Your task to perform on an android device: Go to Reddit.com Image 0: 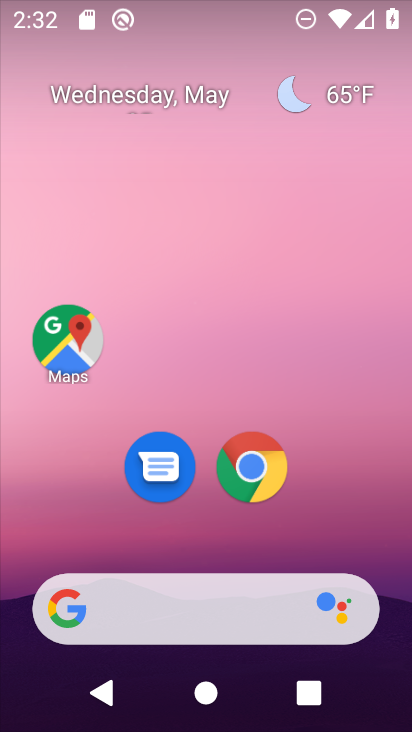
Step 0: click (263, 469)
Your task to perform on an android device: Go to Reddit.com Image 1: 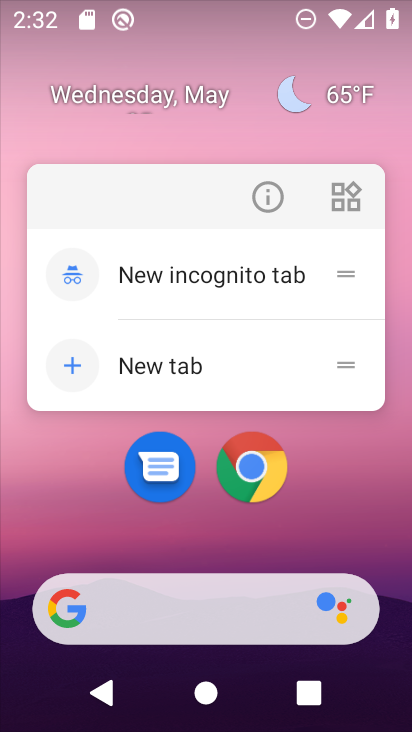
Step 1: click (243, 455)
Your task to perform on an android device: Go to Reddit.com Image 2: 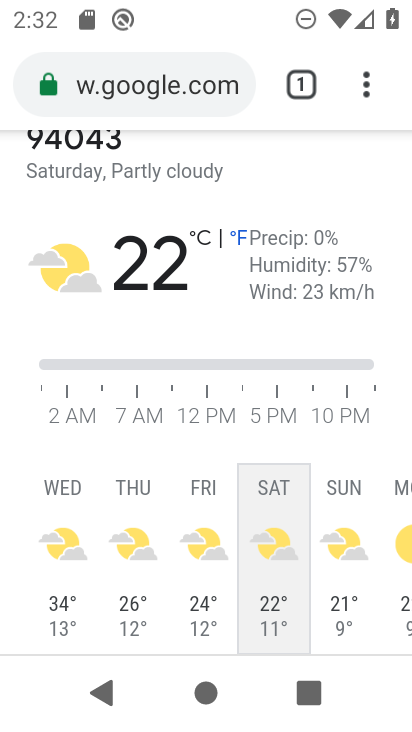
Step 2: click (359, 69)
Your task to perform on an android device: Go to Reddit.com Image 3: 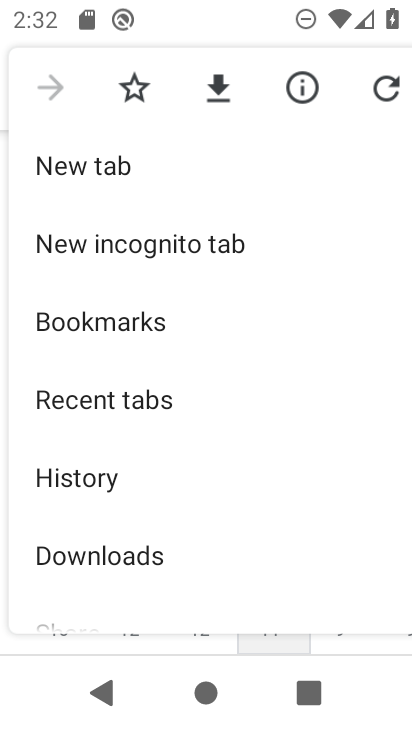
Step 3: click (131, 172)
Your task to perform on an android device: Go to Reddit.com Image 4: 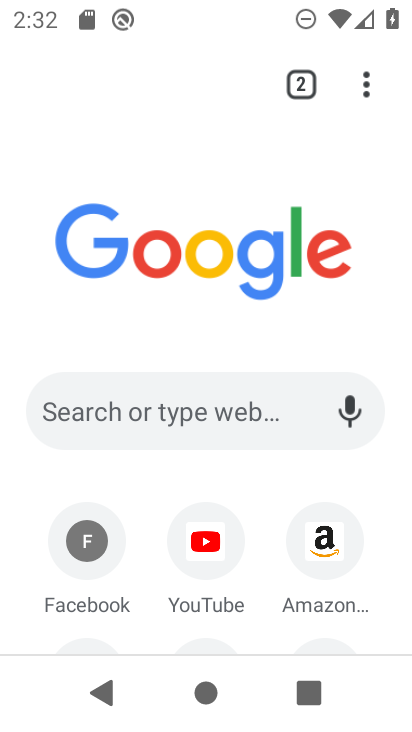
Step 4: click (90, 393)
Your task to perform on an android device: Go to Reddit.com Image 5: 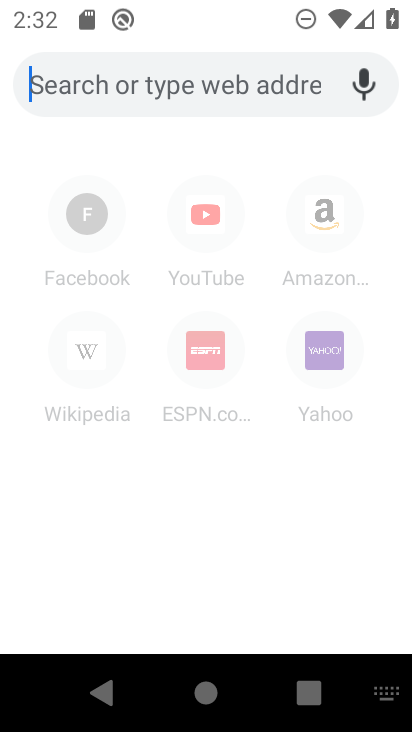
Step 5: type "Reddit.com"
Your task to perform on an android device: Go to Reddit.com Image 6: 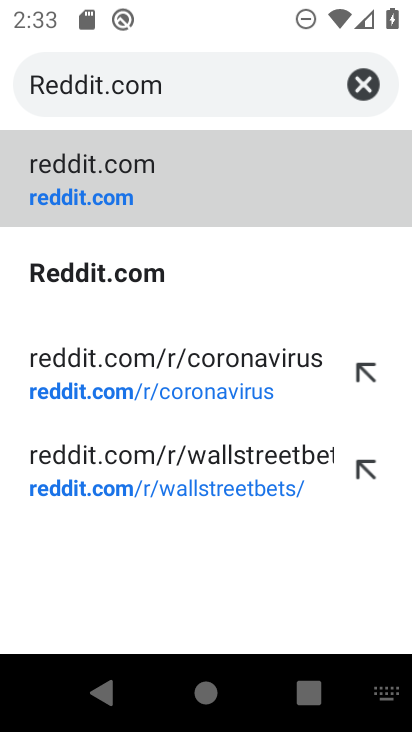
Step 6: click (248, 204)
Your task to perform on an android device: Go to Reddit.com Image 7: 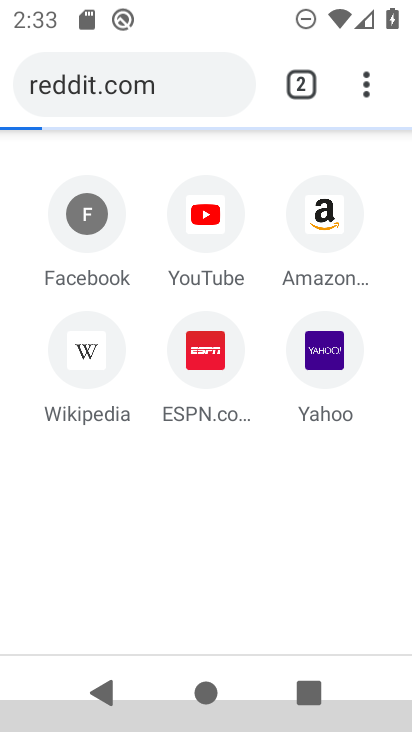
Step 7: task complete